Your task to perform on an android device: turn on sleep mode Image 0: 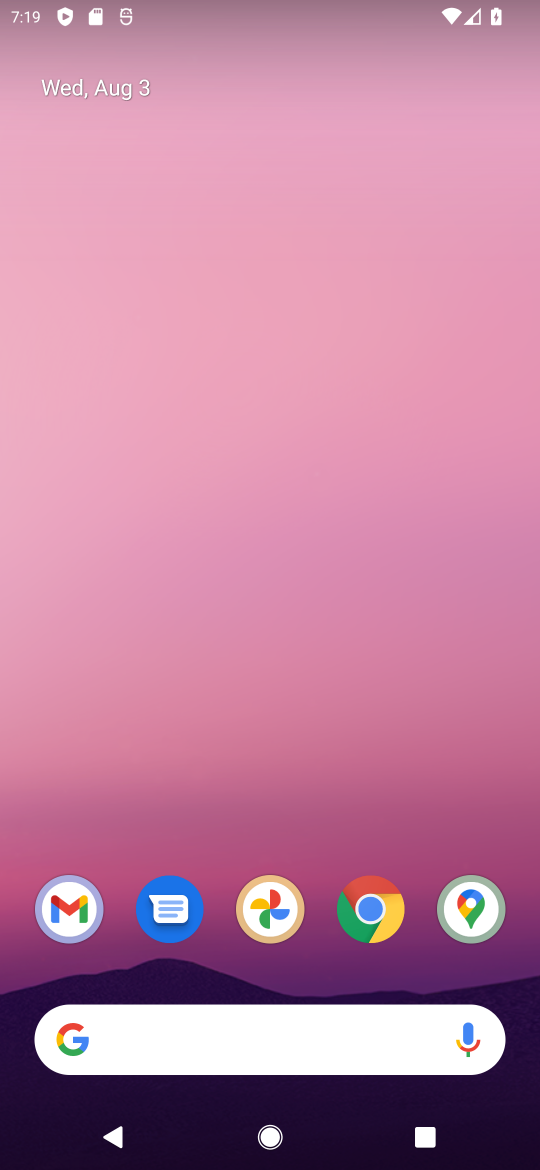
Step 0: drag from (410, 808) to (444, 126)
Your task to perform on an android device: turn on sleep mode Image 1: 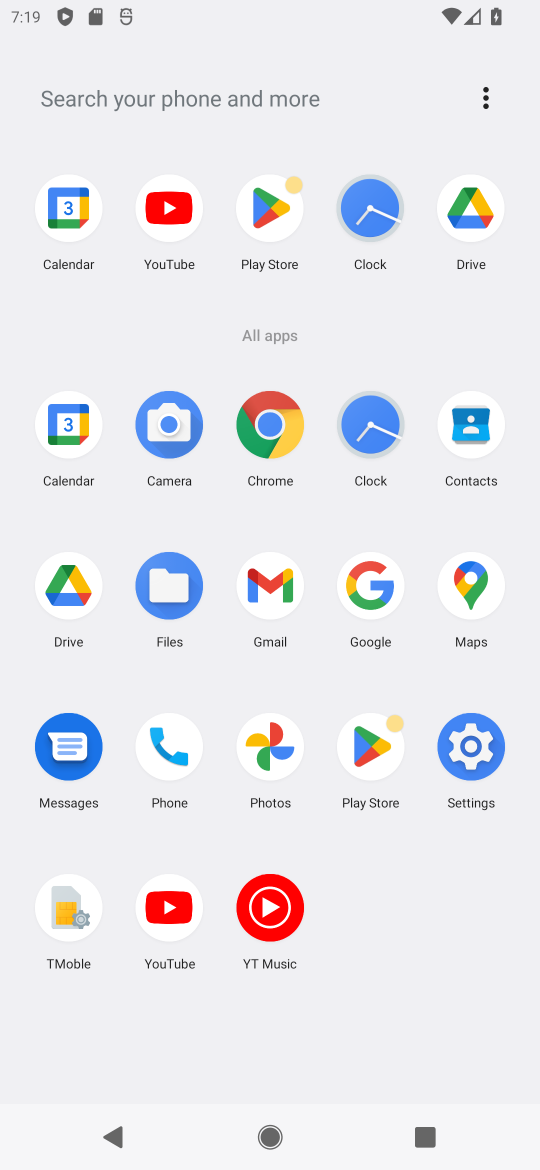
Step 1: click (481, 742)
Your task to perform on an android device: turn on sleep mode Image 2: 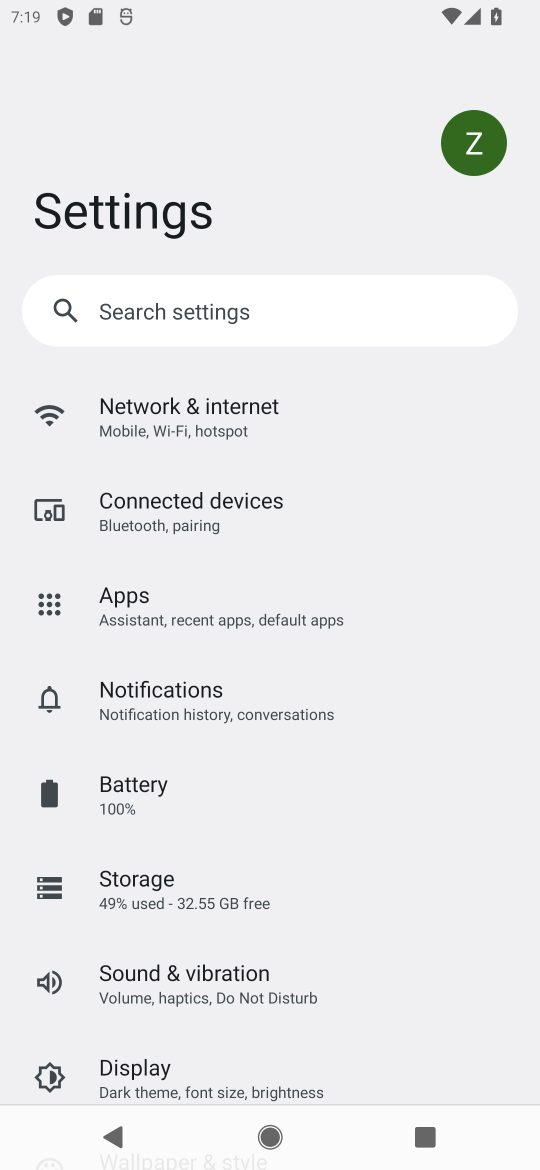
Step 2: drag from (420, 878) to (420, 570)
Your task to perform on an android device: turn on sleep mode Image 3: 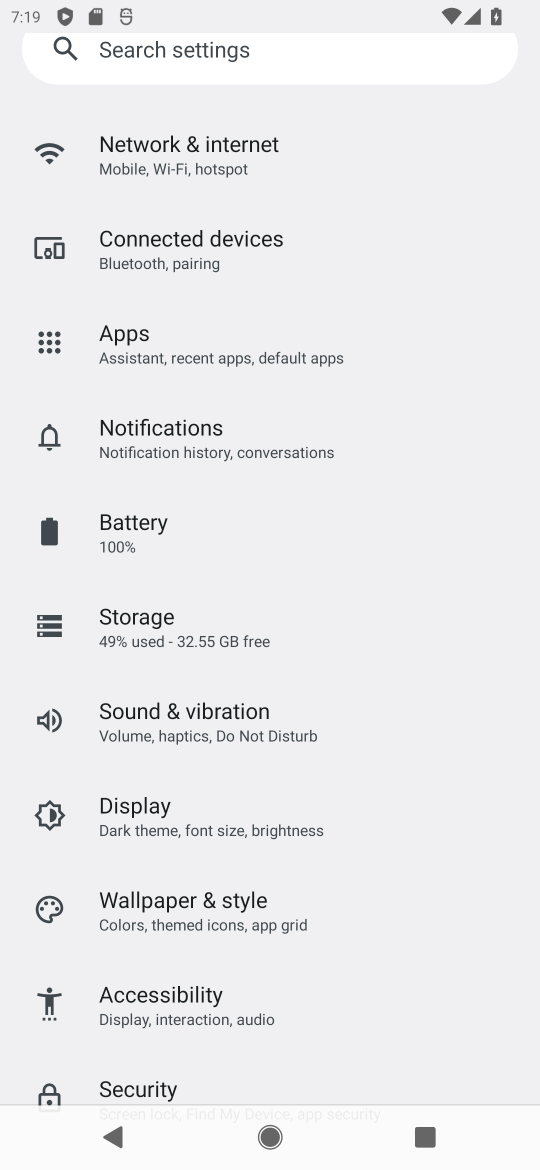
Step 3: drag from (437, 936) to (441, 670)
Your task to perform on an android device: turn on sleep mode Image 4: 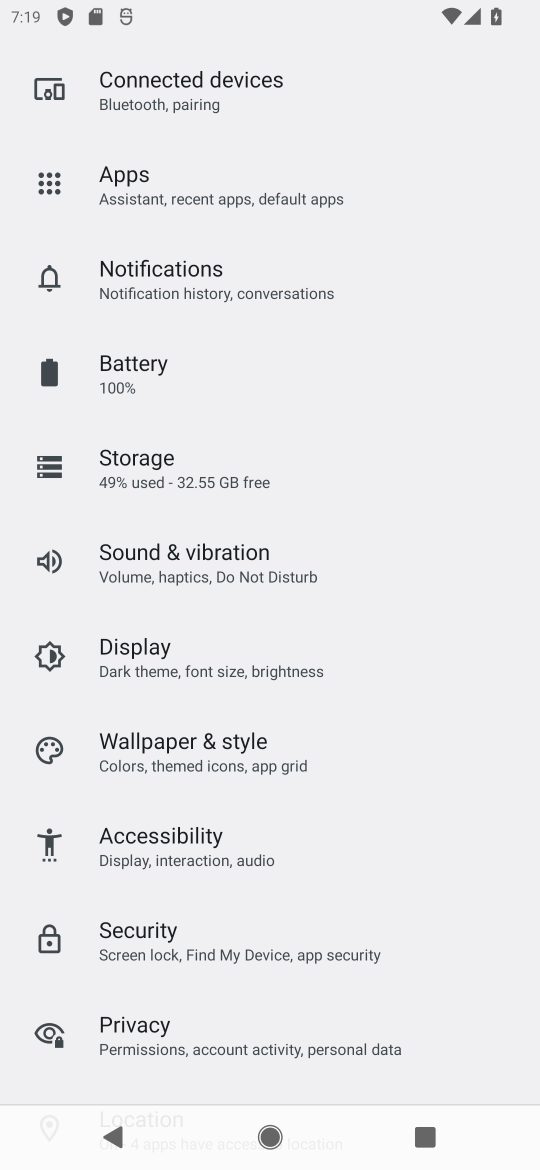
Step 4: drag from (417, 829) to (424, 604)
Your task to perform on an android device: turn on sleep mode Image 5: 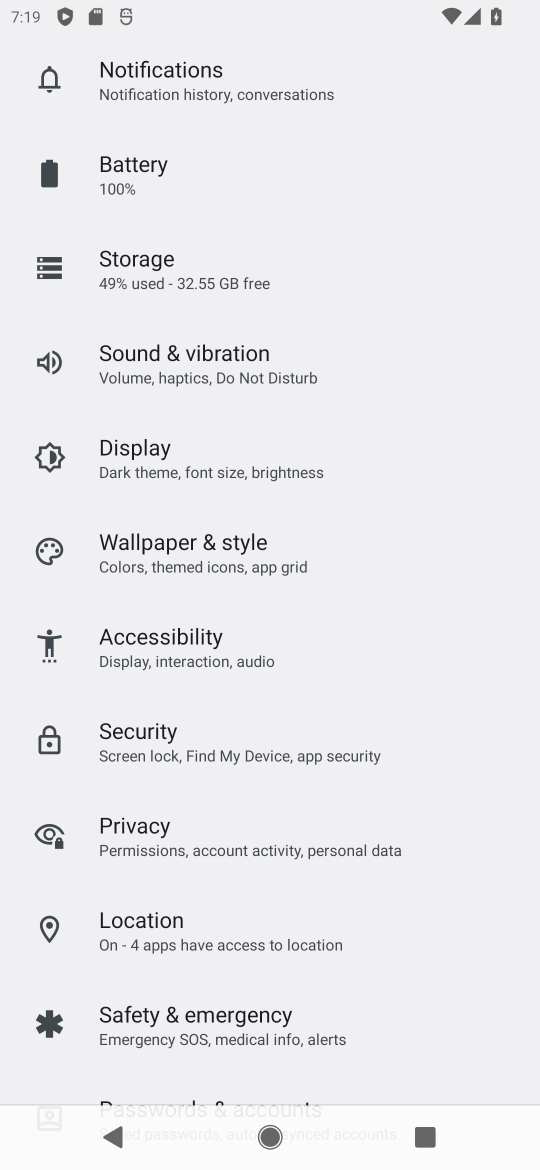
Step 5: drag from (440, 872) to (448, 702)
Your task to perform on an android device: turn on sleep mode Image 6: 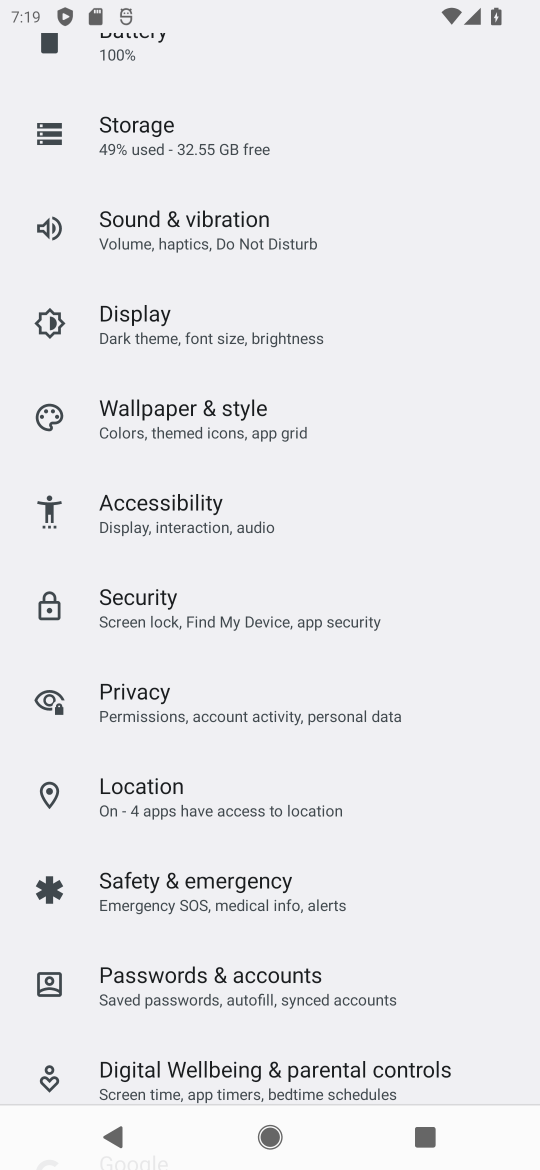
Step 6: drag from (458, 948) to (456, 754)
Your task to perform on an android device: turn on sleep mode Image 7: 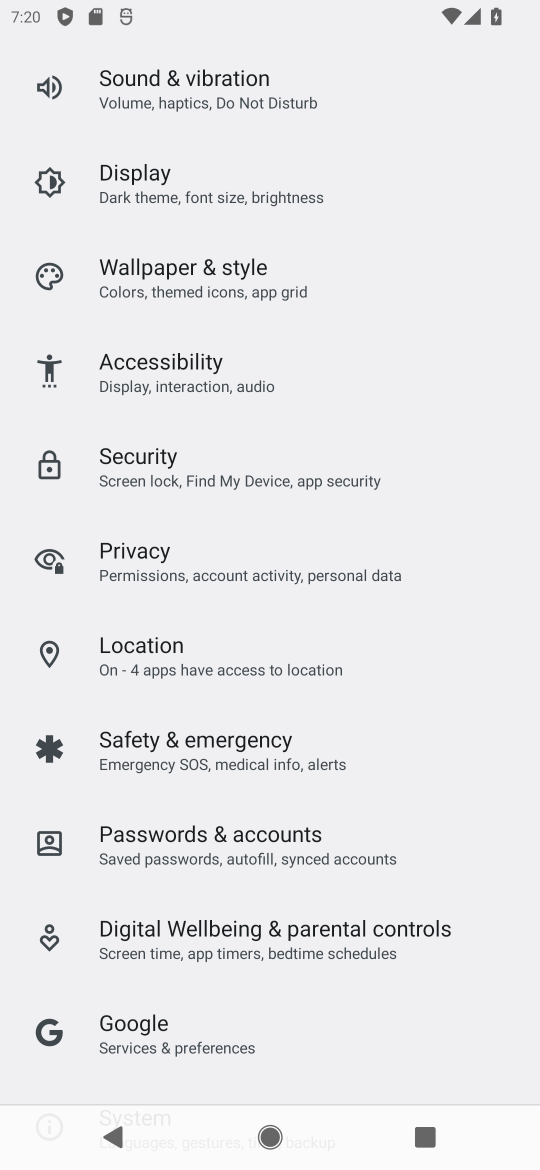
Step 7: drag from (453, 1004) to (450, 760)
Your task to perform on an android device: turn on sleep mode Image 8: 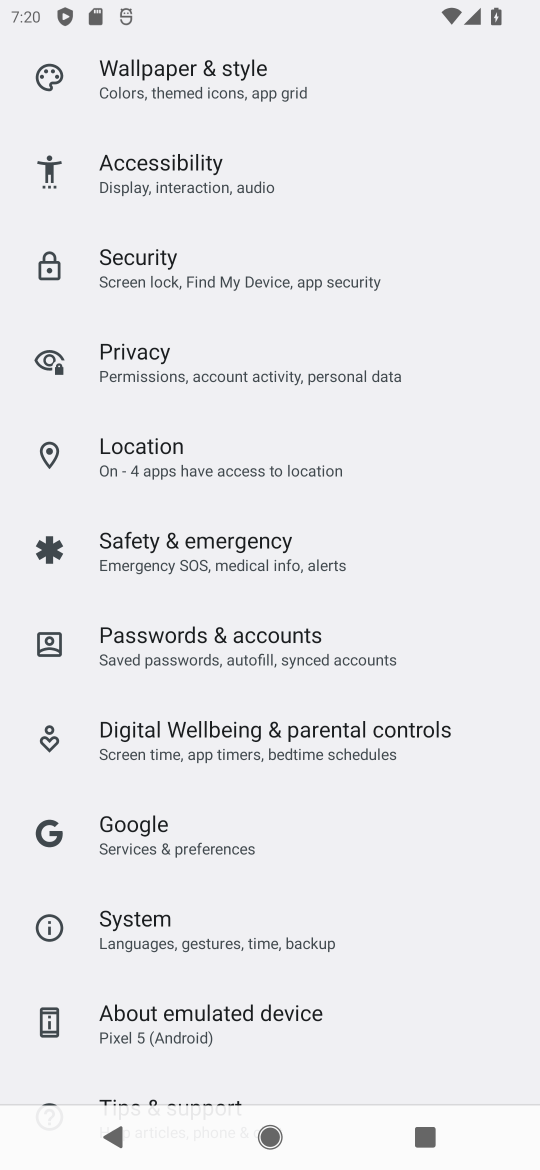
Step 8: drag from (441, 921) to (437, 690)
Your task to perform on an android device: turn on sleep mode Image 9: 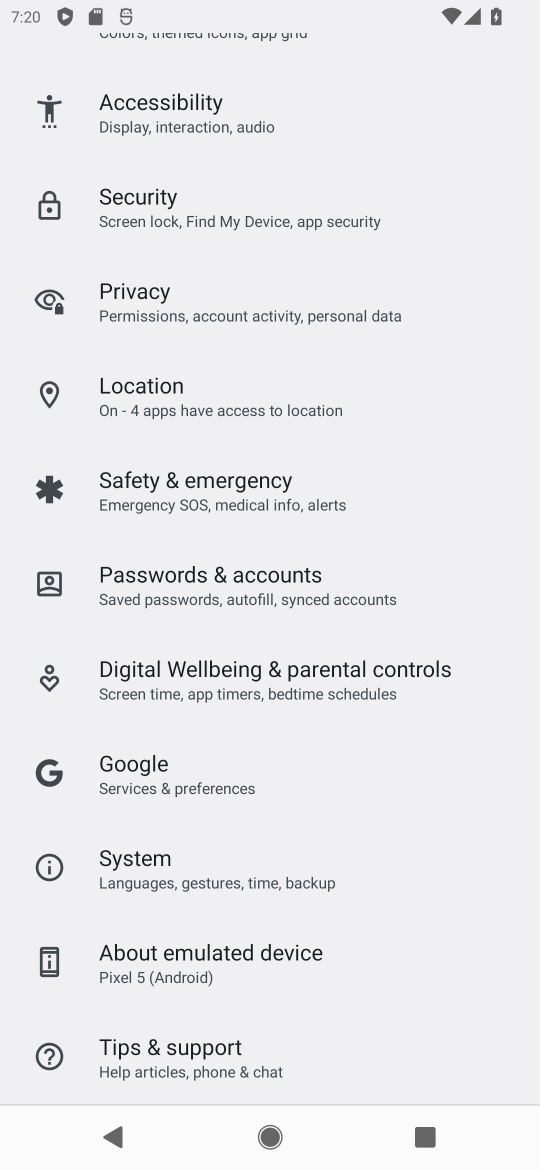
Step 9: drag from (458, 546) to (461, 767)
Your task to perform on an android device: turn on sleep mode Image 10: 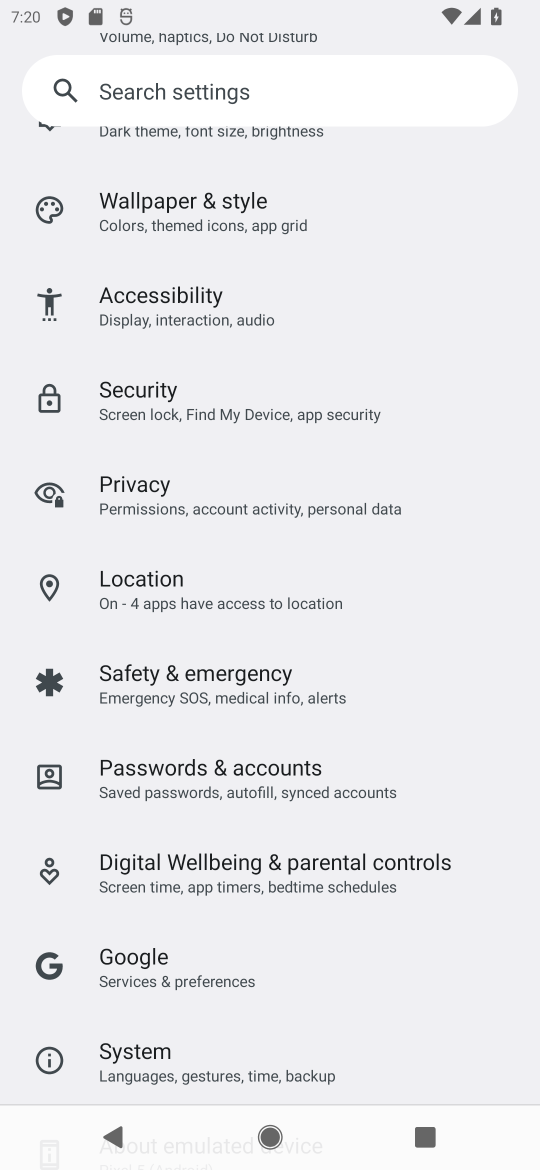
Step 10: drag from (475, 406) to (449, 672)
Your task to perform on an android device: turn on sleep mode Image 11: 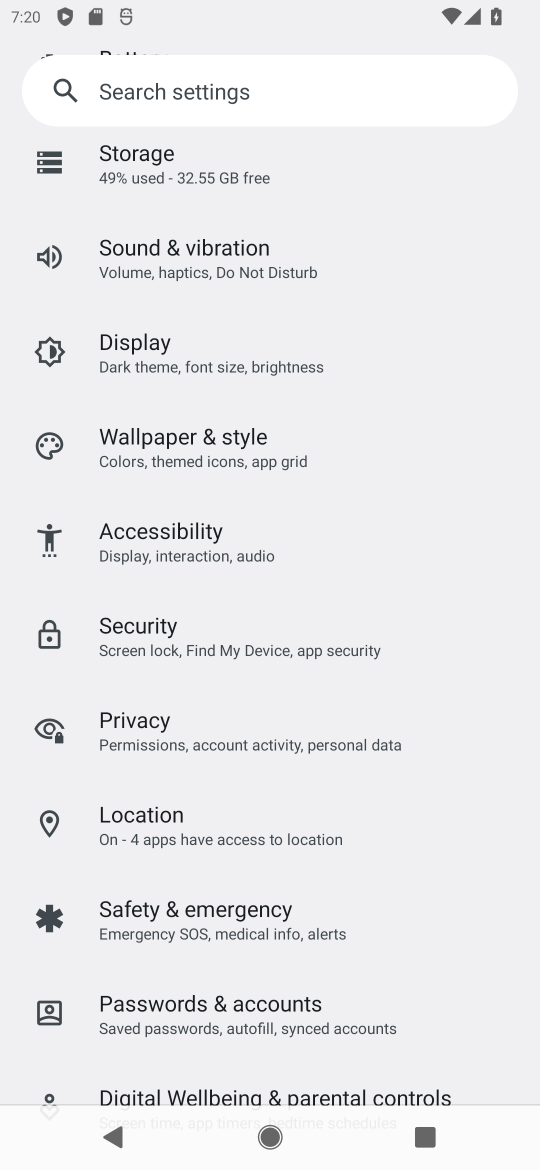
Step 11: drag from (441, 449) to (426, 730)
Your task to perform on an android device: turn on sleep mode Image 12: 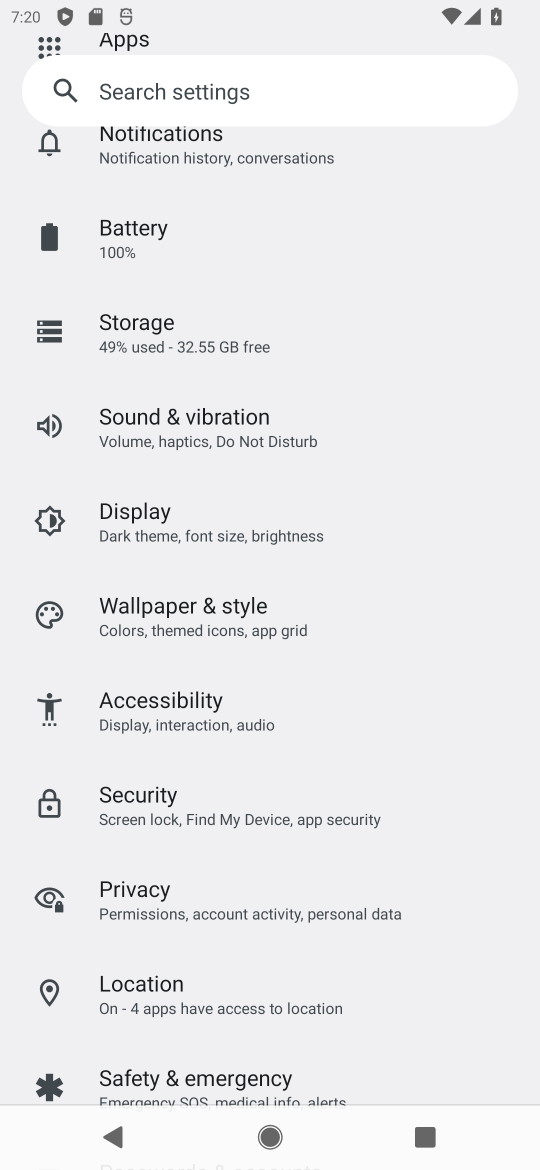
Step 12: drag from (420, 373) to (408, 581)
Your task to perform on an android device: turn on sleep mode Image 13: 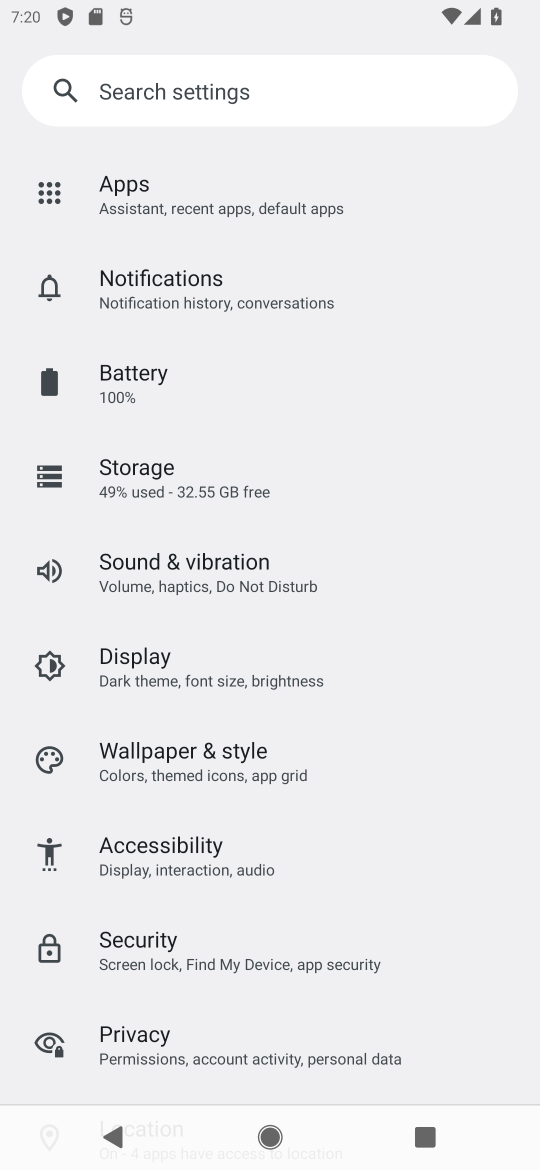
Step 13: click (334, 679)
Your task to perform on an android device: turn on sleep mode Image 14: 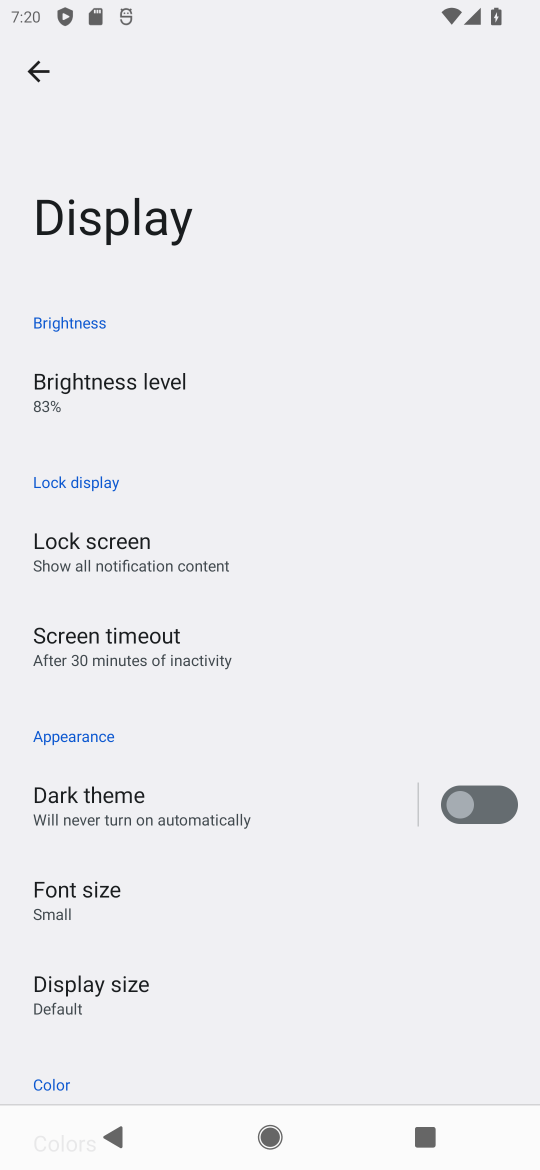
Step 14: task complete